Your task to perform on an android device: Open the stopwatch Image 0: 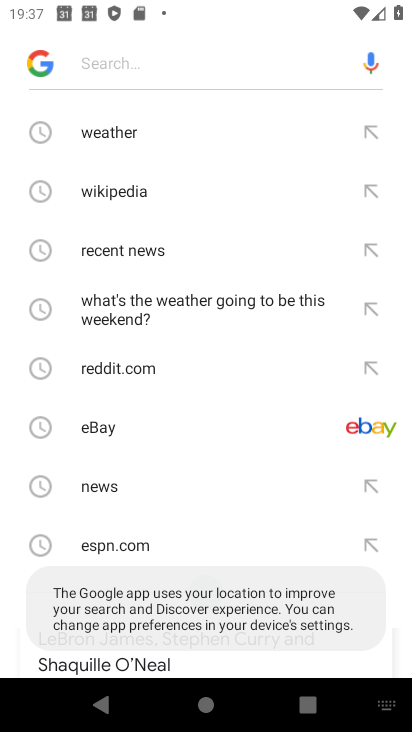
Step 0: press home button
Your task to perform on an android device: Open the stopwatch Image 1: 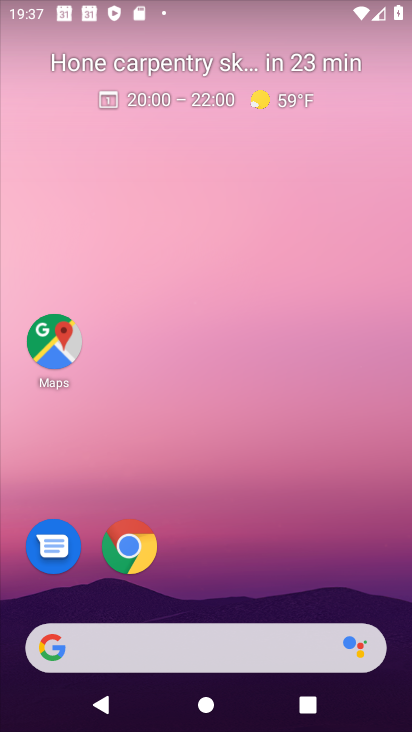
Step 1: drag from (327, 559) to (273, 305)
Your task to perform on an android device: Open the stopwatch Image 2: 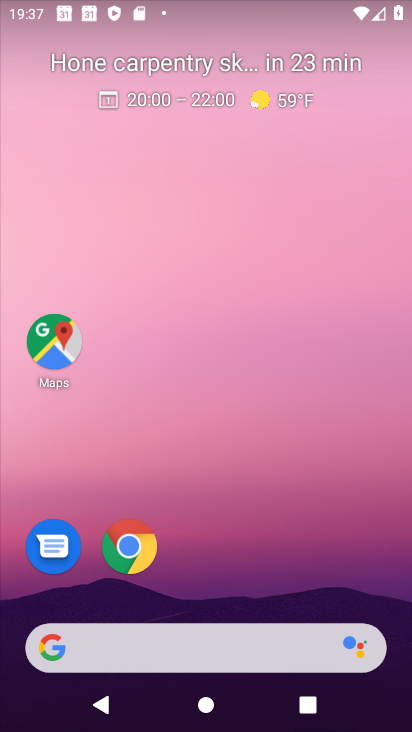
Step 2: drag from (363, 560) to (321, 229)
Your task to perform on an android device: Open the stopwatch Image 3: 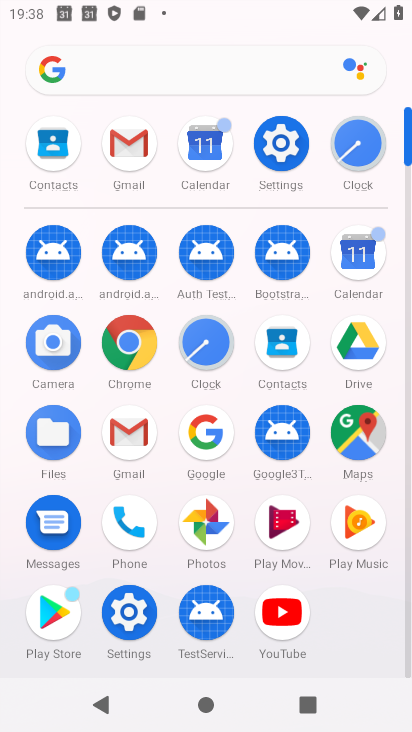
Step 3: click (193, 362)
Your task to perform on an android device: Open the stopwatch Image 4: 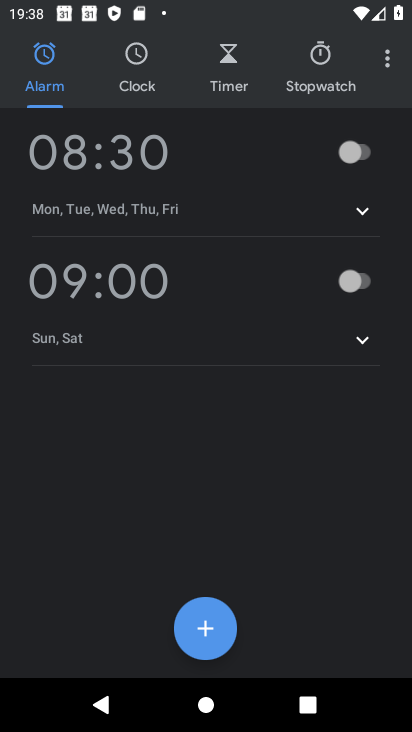
Step 4: click (306, 63)
Your task to perform on an android device: Open the stopwatch Image 5: 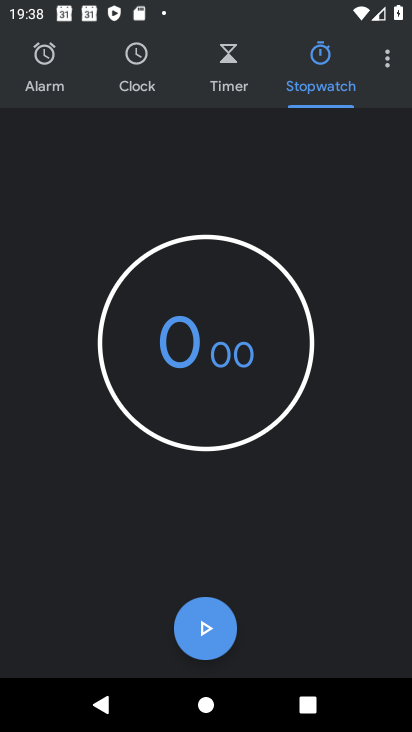
Step 5: task complete